Your task to perform on an android device: What is the news today? Image 0: 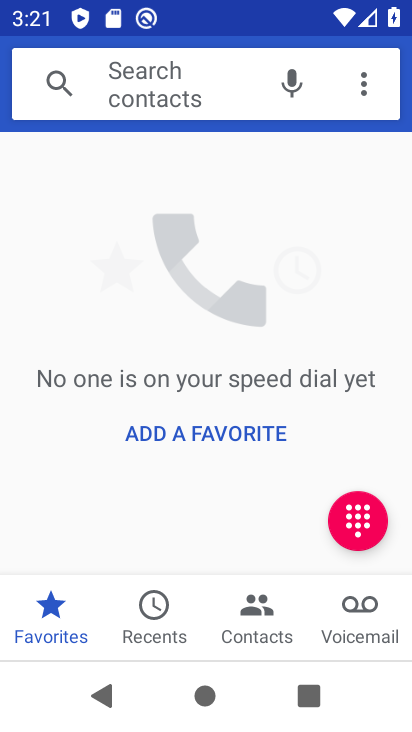
Step 0: press home button
Your task to perform on an android device: What is the news today? Image 1: 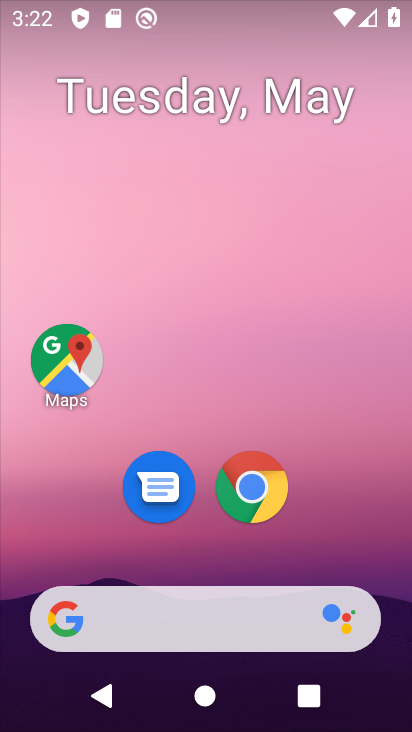
Step 1: task complete